Your task to perform on an android device: toggle data saver in the chrome app Image 0: 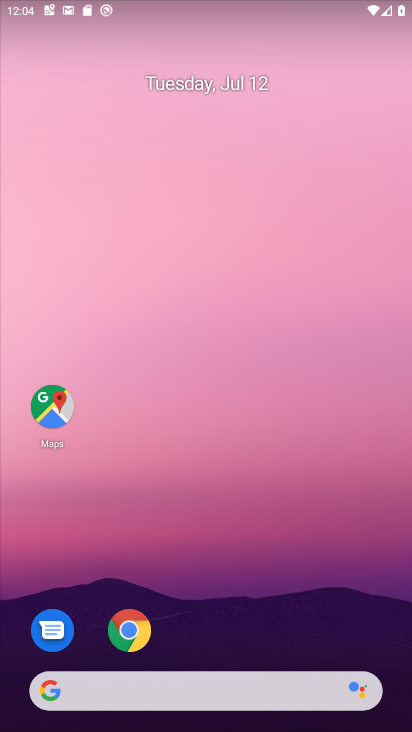
Step 0: drag from (231, 617) to (224, 279)
Your task to perform on an android device: toggle data saver in the chrome app Image 1: 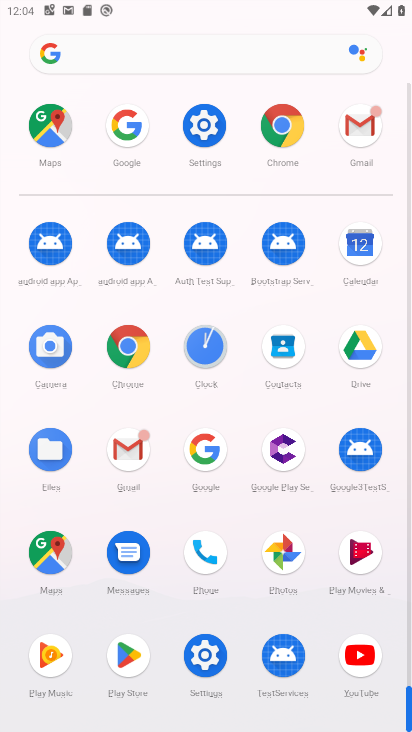
Step 1: click (123, 372)
Your task to perform on an android device: toggle data saver in the chrome app Image 2: 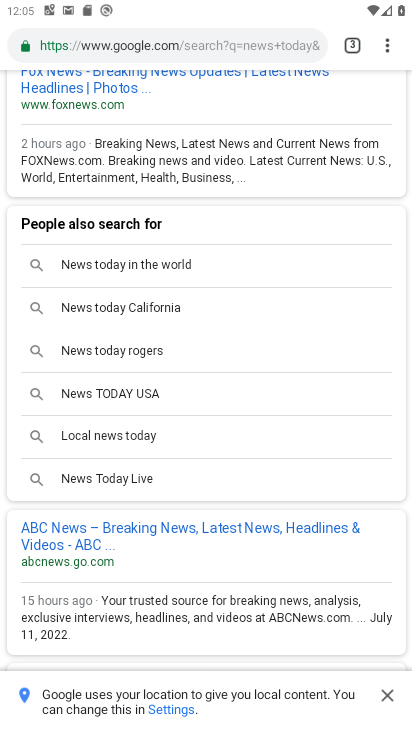
Step 2: click (386, 43)
Your task to perform on an android device: toggle data saver in the chrome app Image 3: 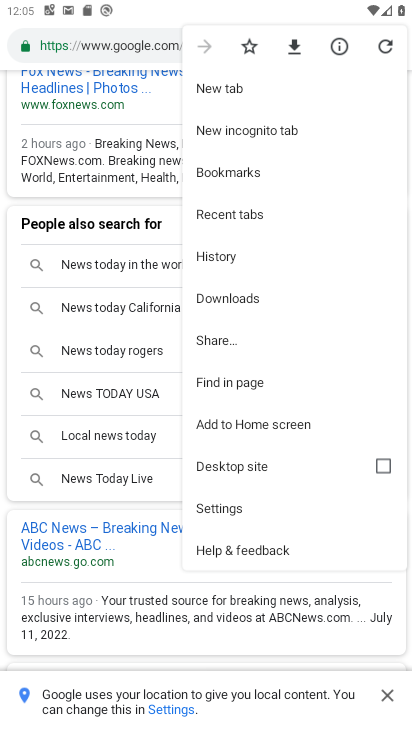
Step 3: click (240, 525)
Your task to perform on an android device: toggle data saver in the chrome app Image 4: 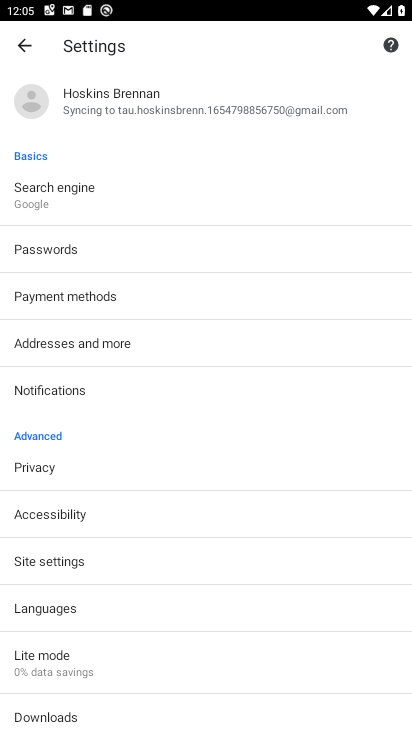
Step 4: drag from (74, 626) to (124, 238)
Your task to perform on an android device: toggle data saver in the chrome app Image 5: 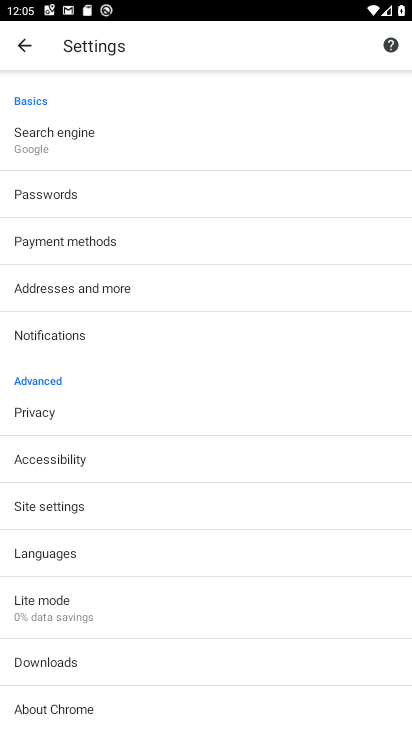
Step 5: click (83, 604)
Your task to perform on an android device: toggle data saver in the chrome app Image 6: 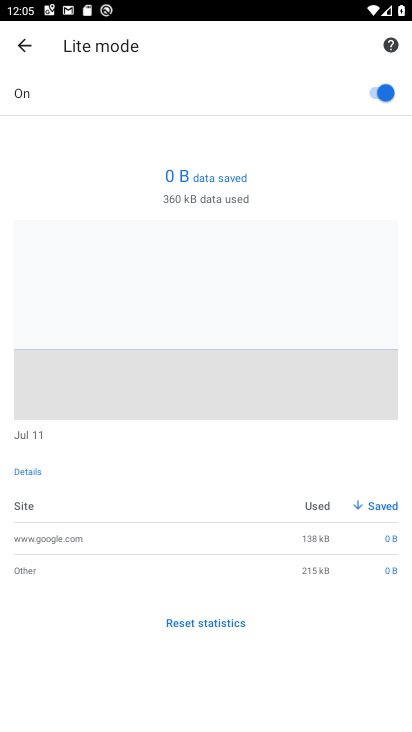
Step 6: click (373, 93)
Your task to perform on an android device: toggle data saver in the chrome app Image 7: 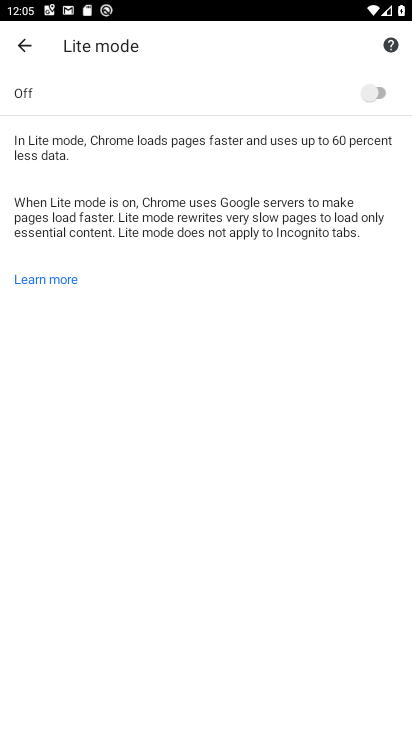
Step 7: task complete